Your task to perform on an android device: Open Google Image 0: 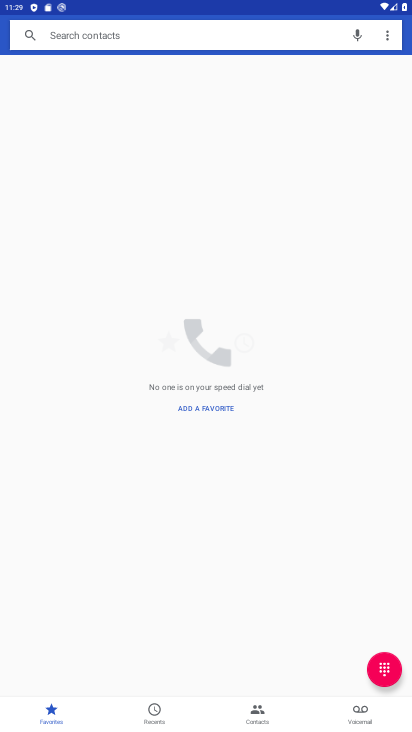
Step 0: press home button
Your task to perform on an android device: Open Google Image 1: 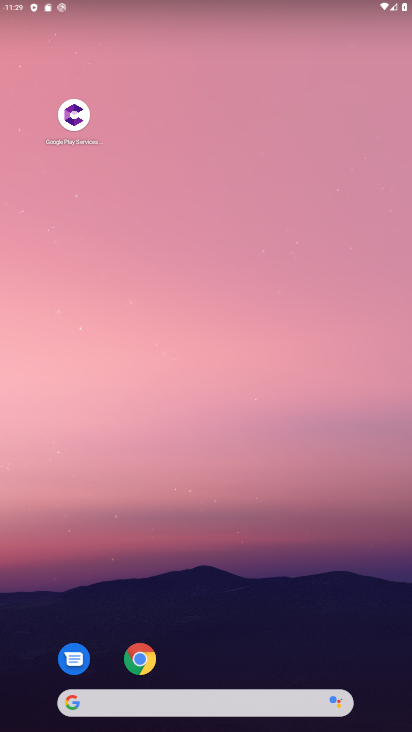
Step 1: click (215, 696)
Your task to perform on an android device: Open Google Image 2: 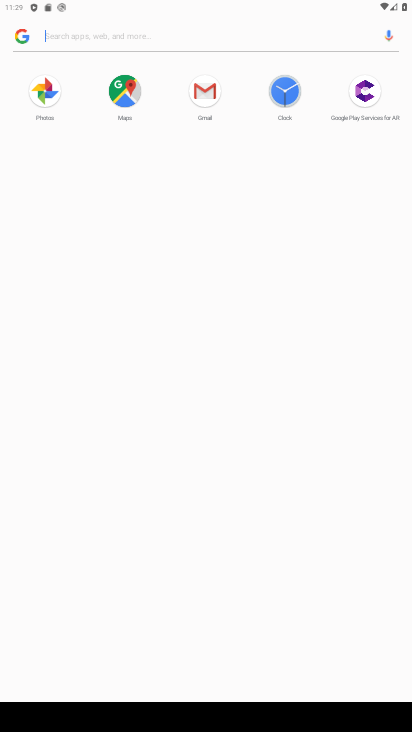
Step 2: task complete